Your task to perform on an android device: Show me popular videos on Youtube Image 0: 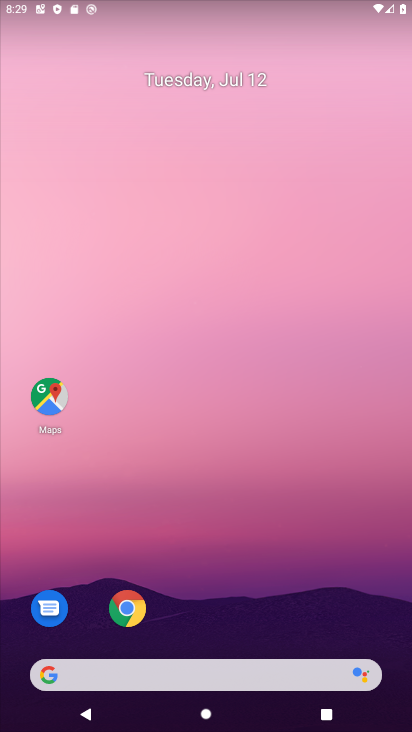
Step 0: drag from (244, 434) to (240, 50)
Your task to perform on an android device: Show me popular videos on Youtube Image 1: 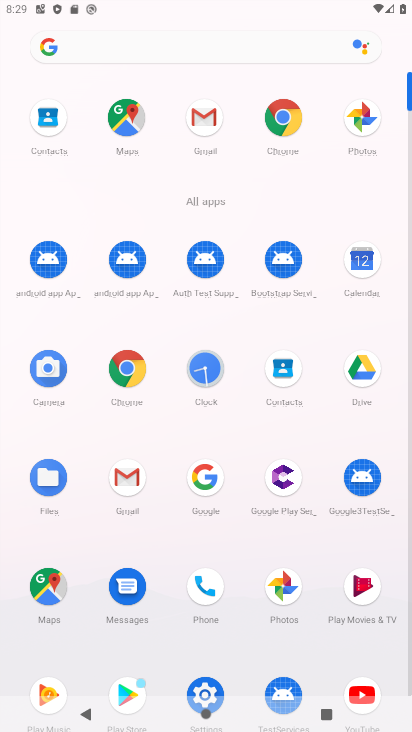
Step 1: click (353, 687)
Your task to perform on an android device: Show me popular videos on Youtube Image 2: 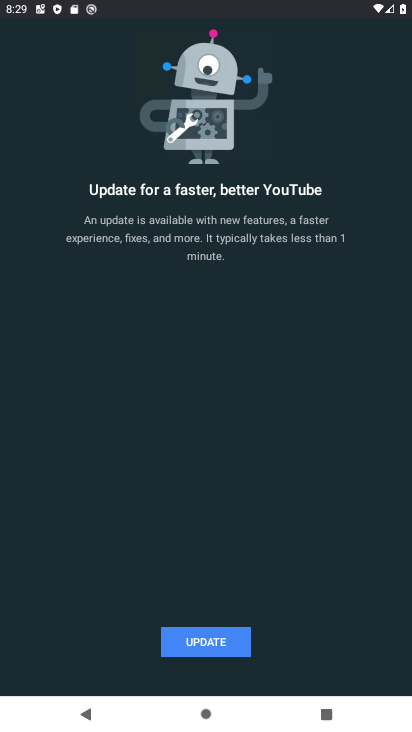
Step 2: click (218, 643)
Your task to perform on an android device: Show me popular videos on Youtube Image 3: 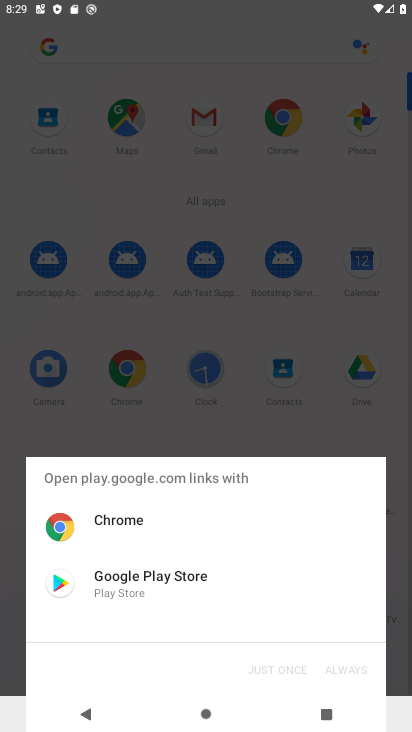
Step 3: click (218, 643)
Your task to perform on an android device: Show me popular videos on Youtube Image 4: 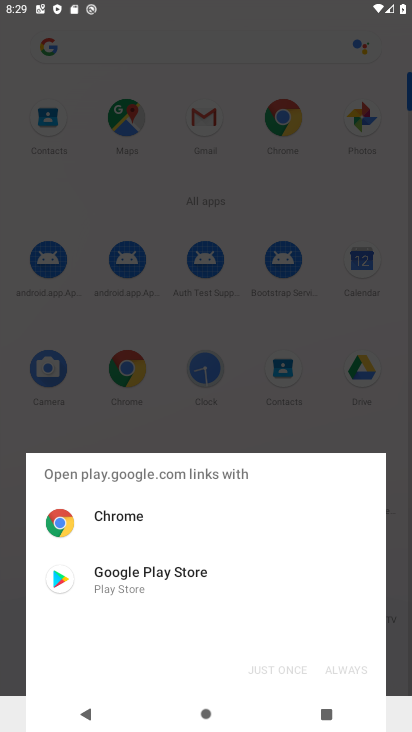
Step 4: click (184, 600)
Your task to perform on an android device: Show me popular videos on Youtube Image 5: 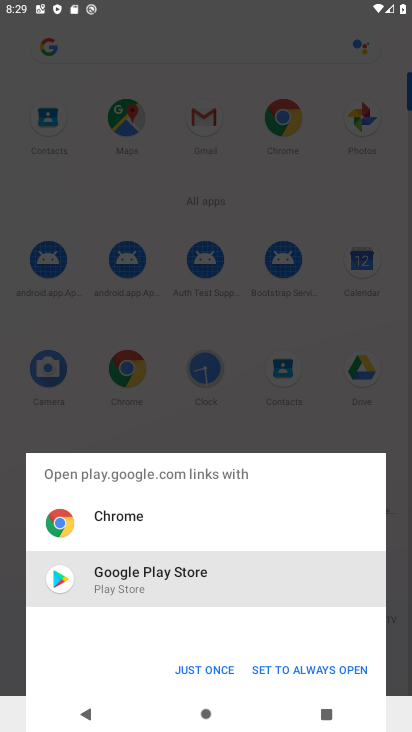
Step 5: click (203, 669)
Your task to perform on an android device: Show me popular videos on Youtube Image 6: 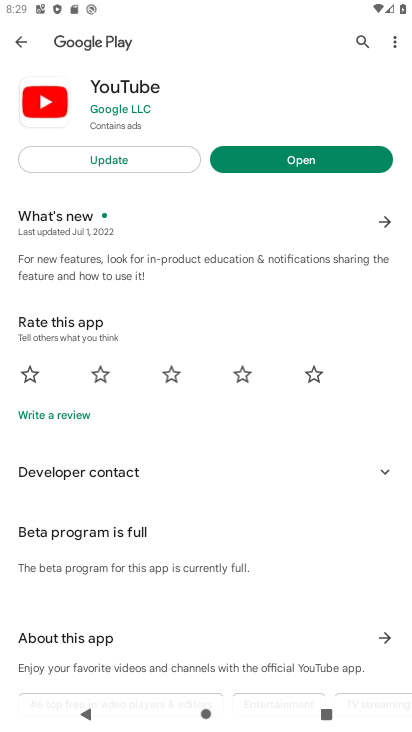
Step 6: click (288, 171)
Your task to perform on an android device: Show me popular videos on Youtube Image 7: 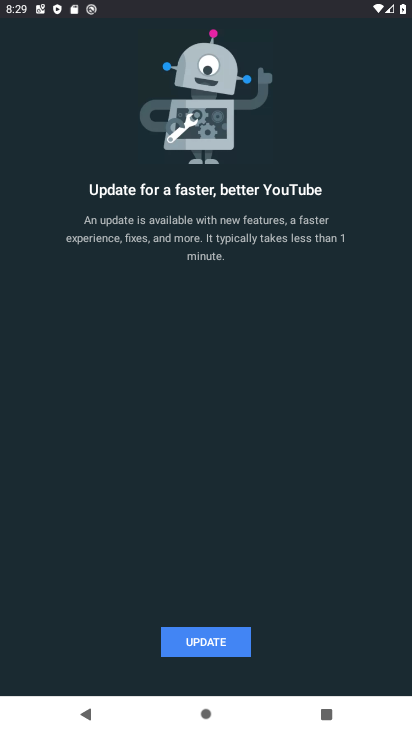
Step 7: click (226, 647)
Your task to perform on an android device: Show me popular videos on Youtube Image 8: 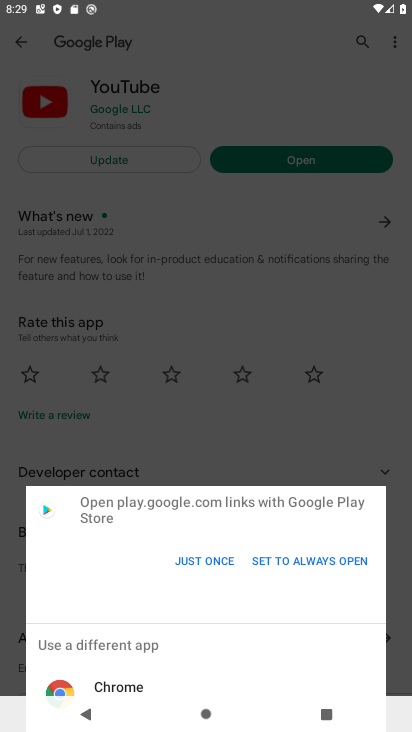
Step 8: click (190, 573)
Your task to perform on an android device: Show me popular videos on Youtube Image 9: 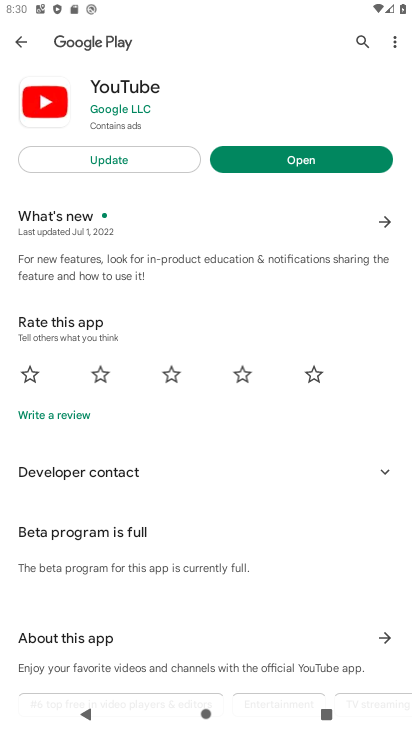
Step 9: click (125, 163)
Your task to perform on an android device: Show me popular videos on Youtube Image 10: 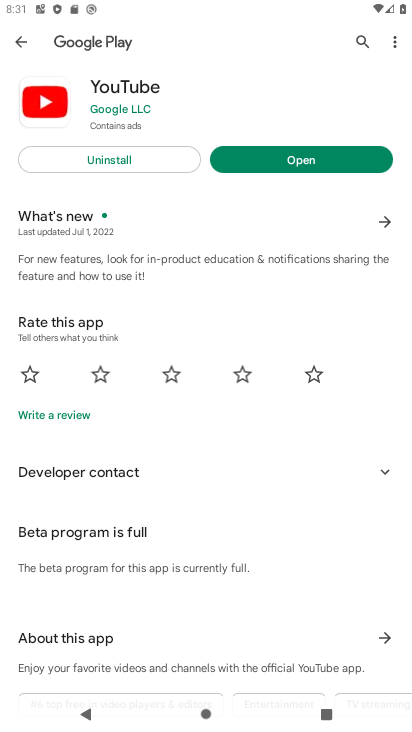
Step 10: click (315, 157)
Your task to perform on an android device: Show me popular videos on Youtube Image 11: 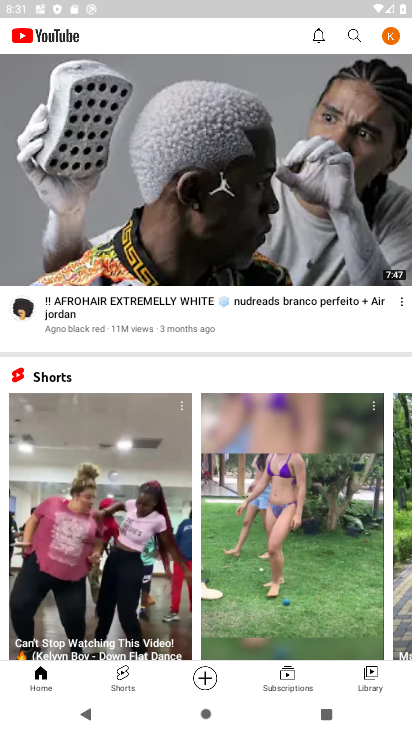
Step 11: drag from (69, 69) to (137, 615)
Your task to perform on an android device: Show me popular videos on Youtube Image 12: 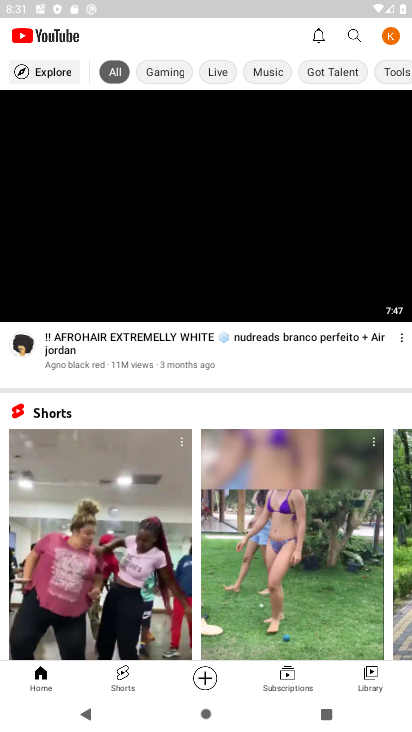
Step 12: click (59, 66)
Your task to perform on an android device: Show me popular videos on Youtube Image 13: 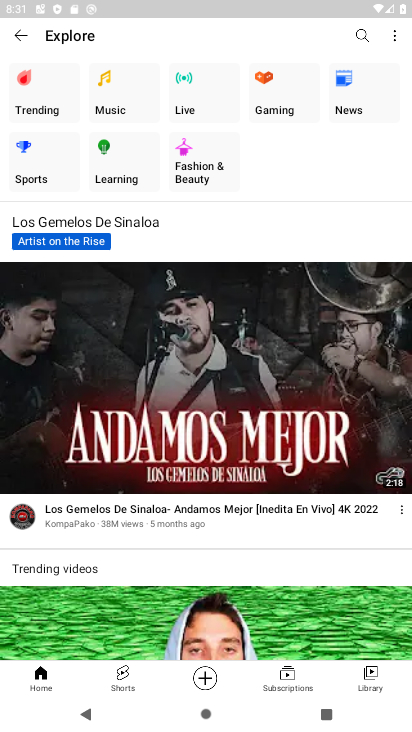
Step 13: click (27, 92)
Your task to perform on an android device: Show me popular videos on Youtube Image 14: 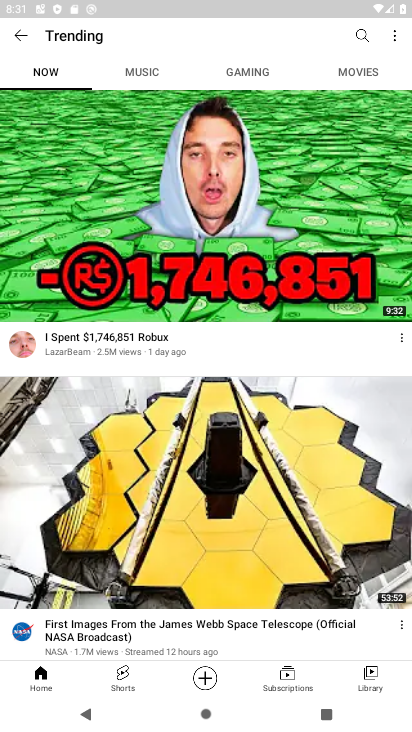
Step 14: task complete